Your task to perform on an android device: Is it going to rain today? Image 0: 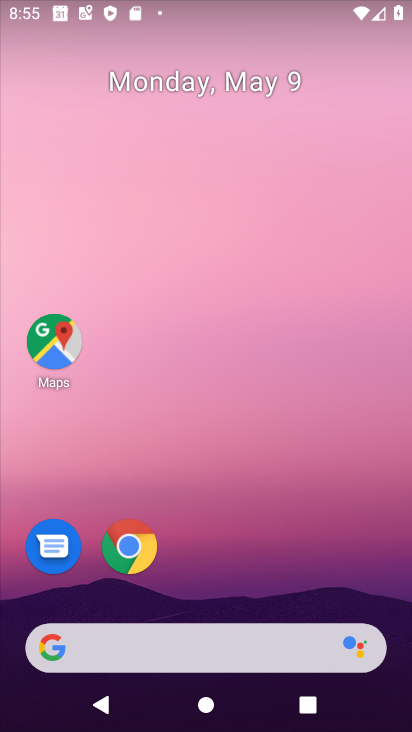
Step 0: click (194, 649)
Your task to perform on an android device: Is it going to rain today? Image 1: 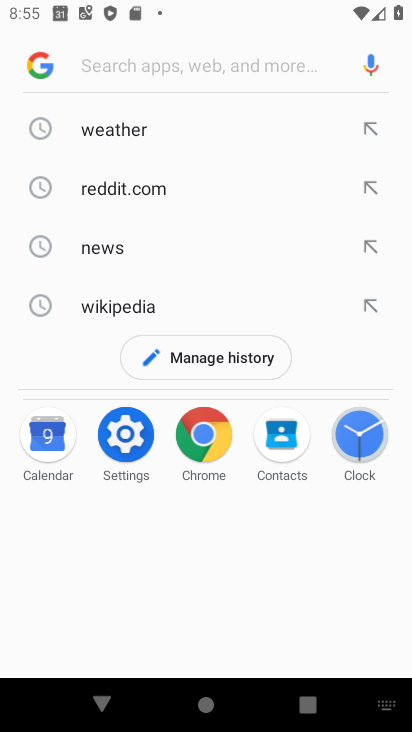
Step 1: type "Is it going to rain today?"
Your task to perform on an android device: Is it going to rain today? Image 2: 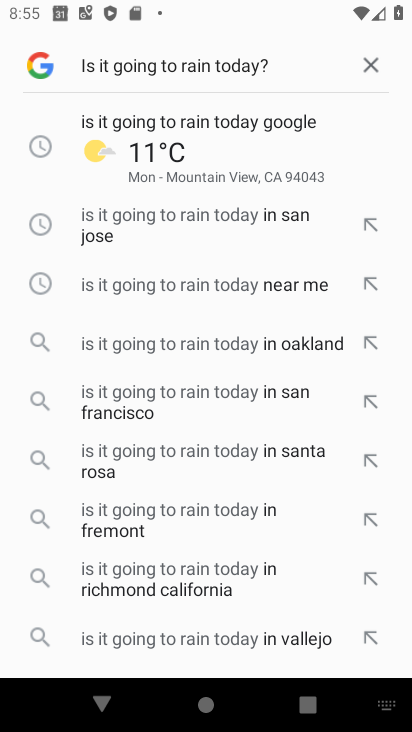
Step 2: click (259, 139)
Your task to perform on an android device: Is it going to rain today? Image 3: 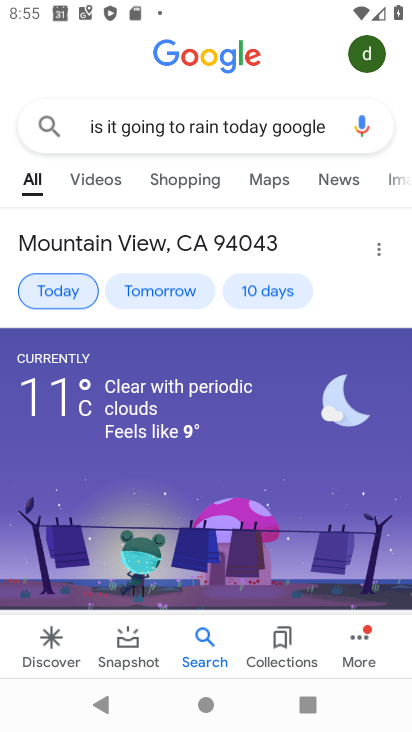
Step 3: task complete